Your task to perform on an android device: change timer sound Image 0: 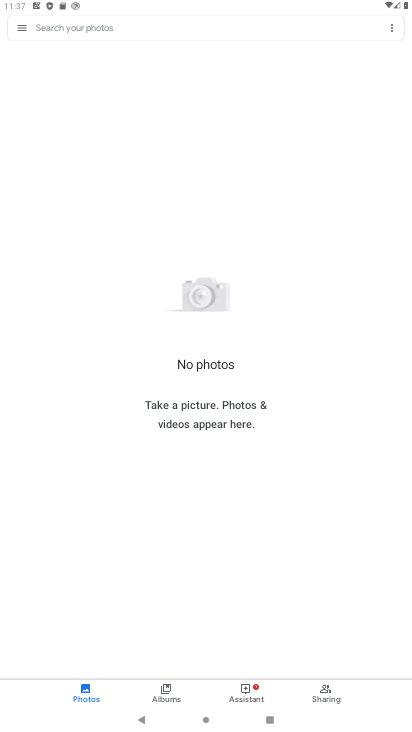
Step 0: press home button
Your task to perform on an android device: change timer sound Image 1: 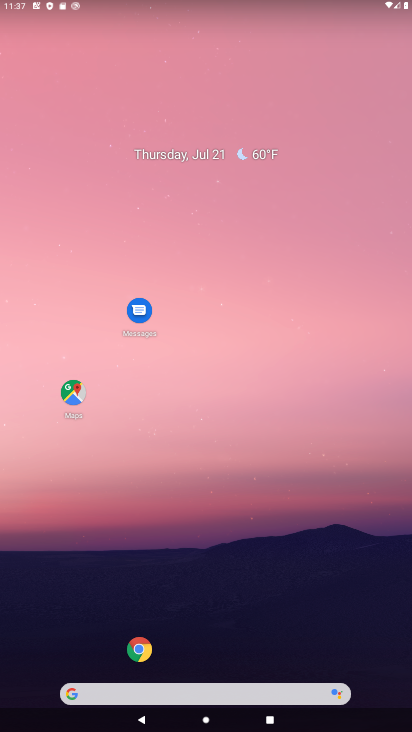
Step 1: drag from (48, 669) to (157, 165)
Your task to perform on an android device: change timer sound Image 2: 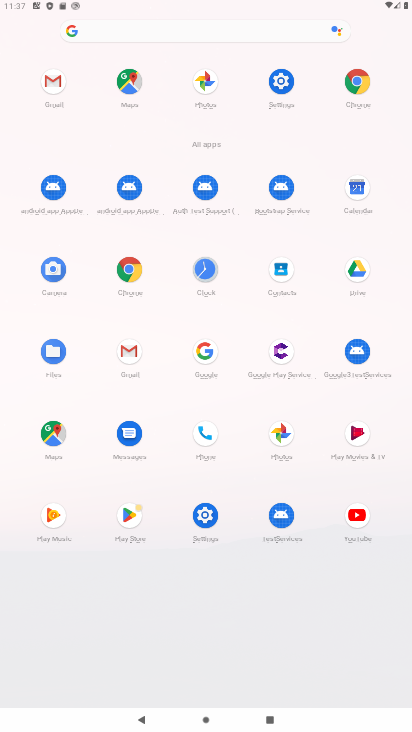
Step 2: click (211, 280)
Your task to perform on an android device: change timer sound Image 3: 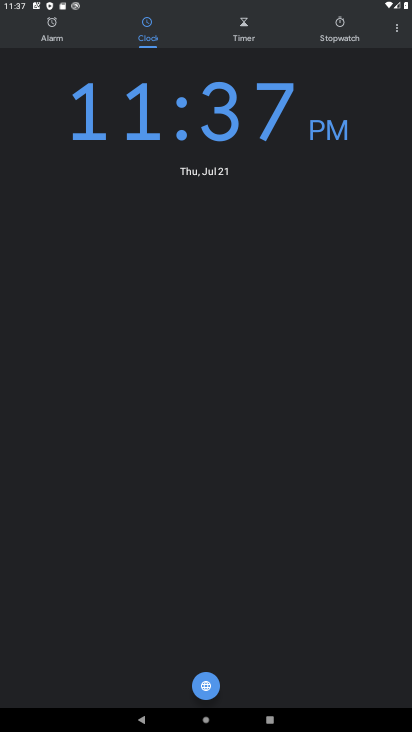
Step 3: click (232, 30)
Your task to perform on an android device: change timer sound Image 4: 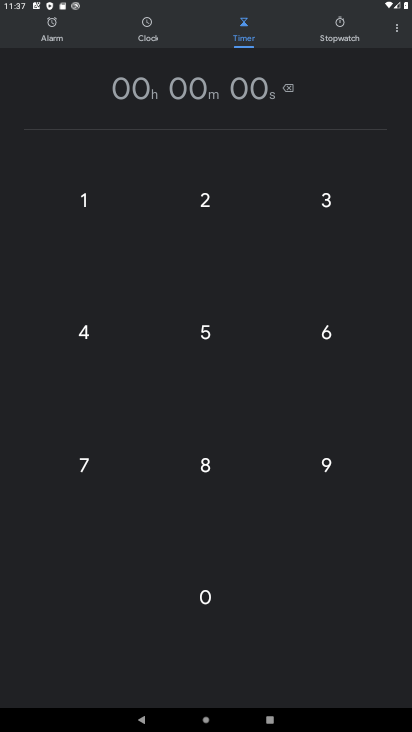
Step 4: click (394, 28)
Your task to perform on an android device: change timer sound Image 5: 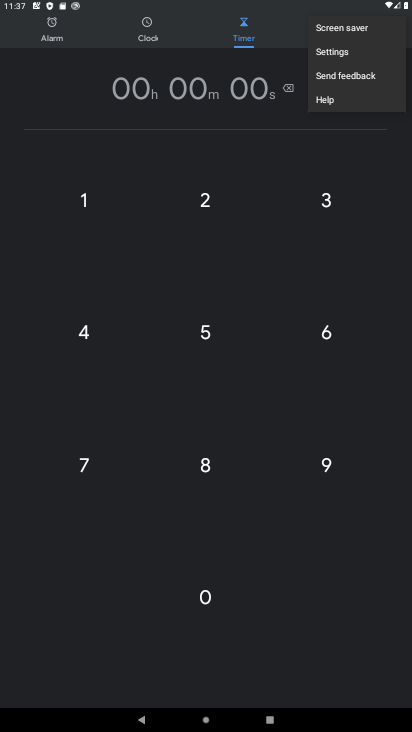
Step 5: click (331, 52)
Your task to perform on an android device: change timer sound Image 6: 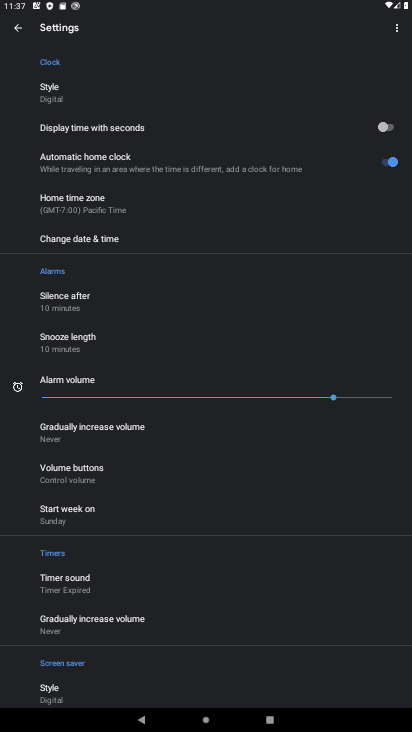
Step 6: click (69, 587)
Your task to perform on an android device: change timer sound Image 7: 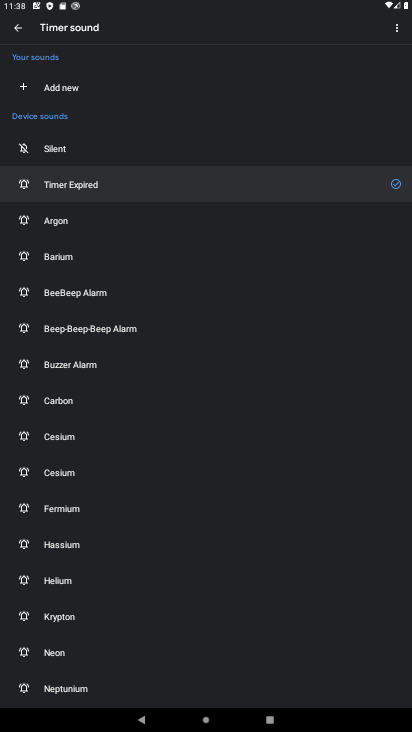
Step 7: click (68, 224)
Your task to perform on an android device: change timer sound Image 8: 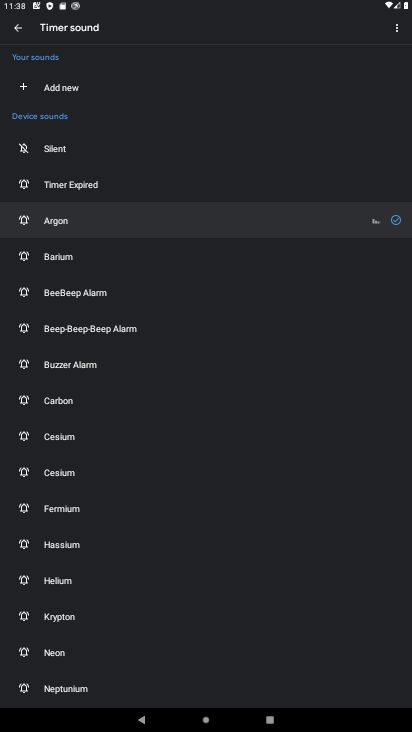
Step 8: click (59, 264)
Your task to perform on an android device: change timer sound Image 9: 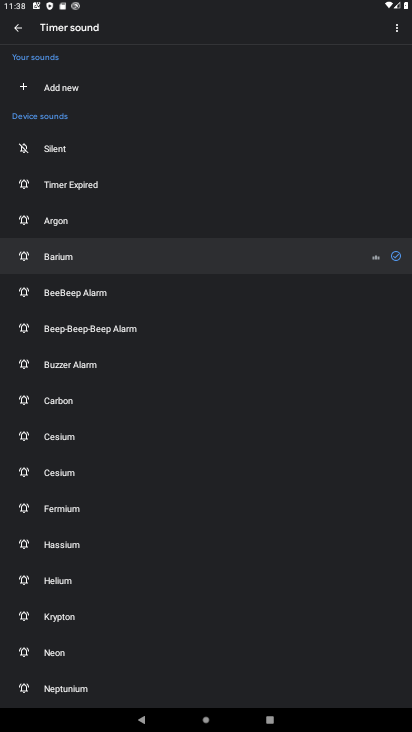
Step 9: task complete